Your task to perform on an android device: change alarm snooze length Image 0: 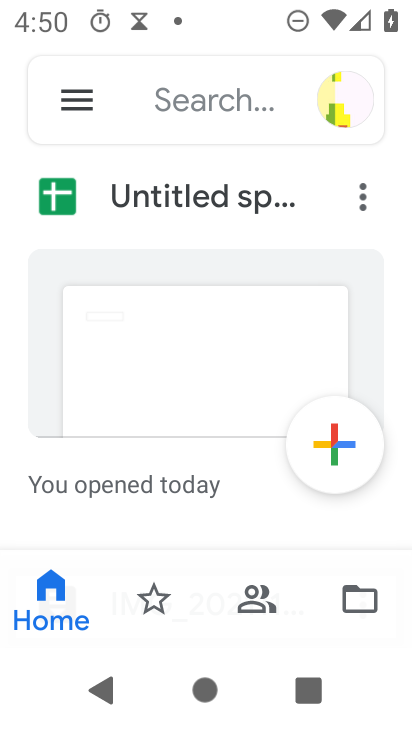
Step 0: press home button
Your task to perform on an android device: change alarm snooze length Image 1: 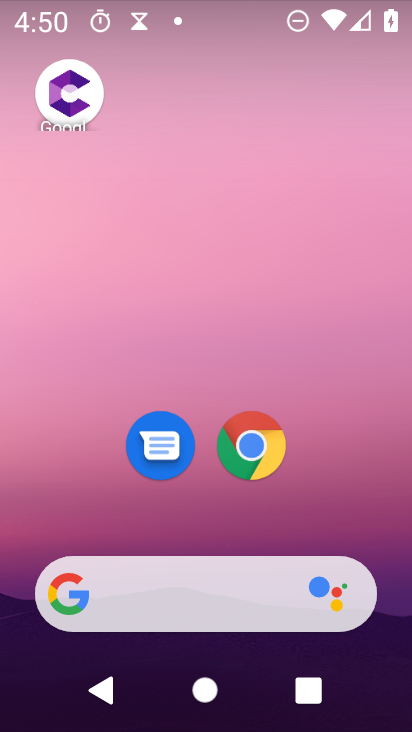
Step 1: drag from (272, 536) to (297, 0)
Your task to perform on an android device: change alarm snooze length Image 2: 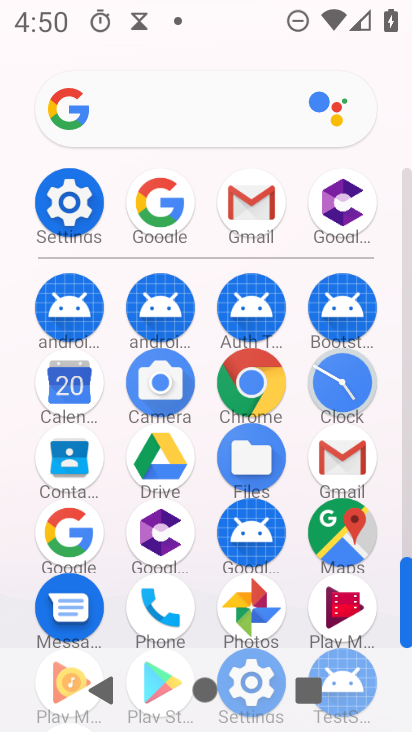
Step 2: click (343, 384)
Your task to perform on an android device: change alarm snooze length Image 3: 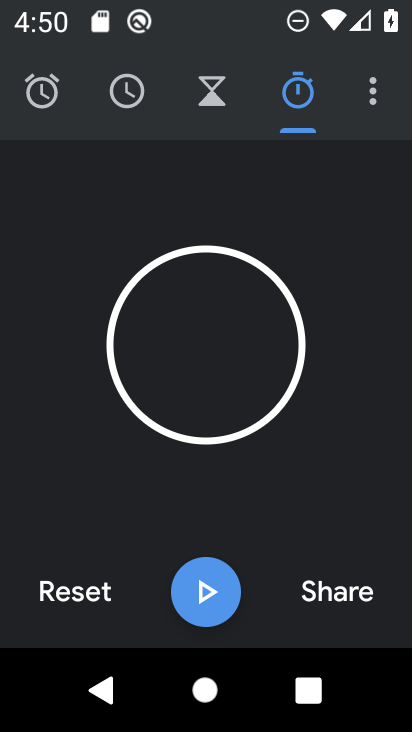
Step 3: click (374, 87)
Your task to perform on an android device: change alarm snooze length Image 4: 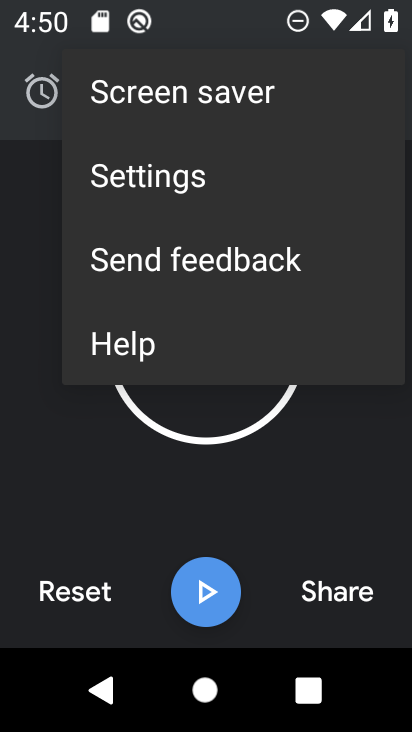
Step 4: click (207, 177)
Your task to perform on an android device: change alarm snooze length Image 5: 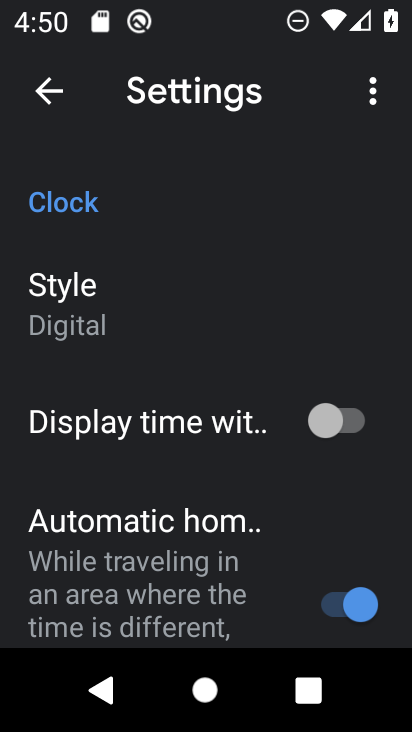
Step 5: drag from (134, 506) to (209, 318)
Your task to perform on an android device: change alarm snooze length Image 6: 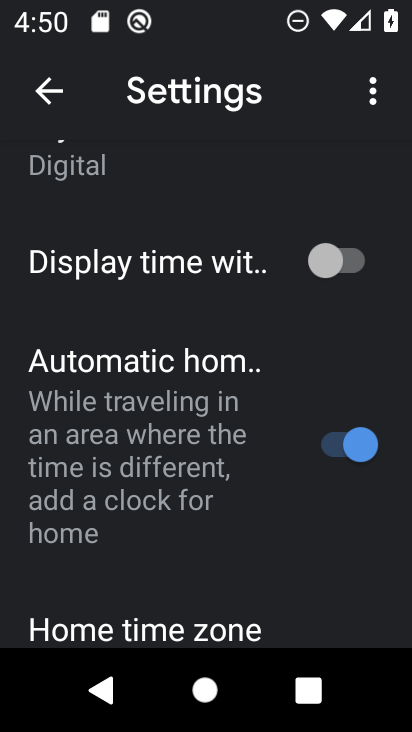
Step 6: drag from (165, 555) to (217, 332)
Your task to perform on an android device: change alarm snooze length Image 7: 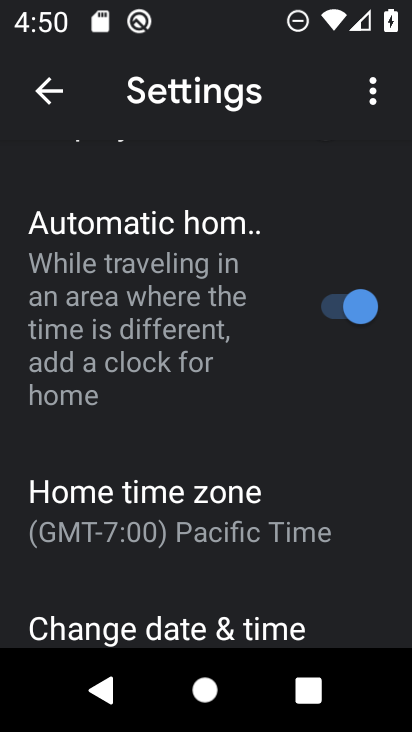
Step 7: drag from (155, 587) to (205, 410)
Your task to perform on an android device: change alarm snooze length Image 8: 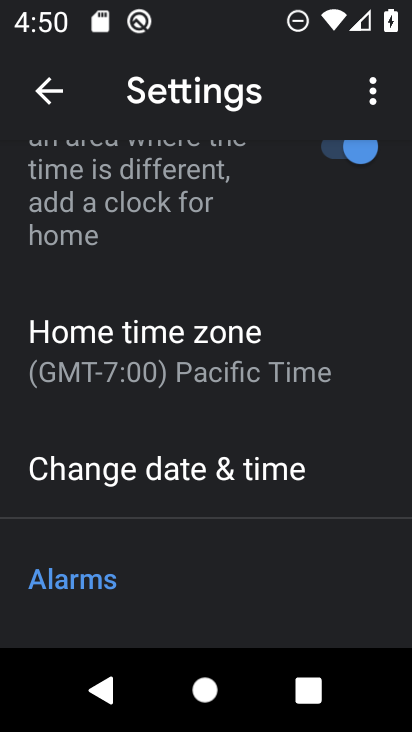
Step 8: drag from (170, 580) to (221, 411)
Your task to perform on an android device: change alarm snooze length Image 9: 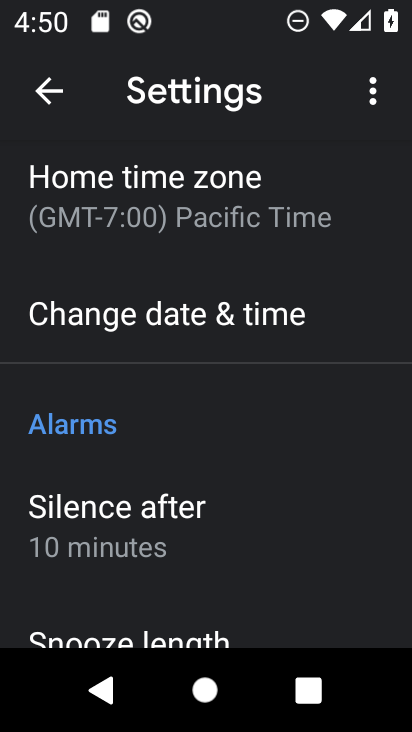
Step 9: drag from (213, 543) to (276, 377)
Your task to perform on an android device: change alarm snooze length Image 10: 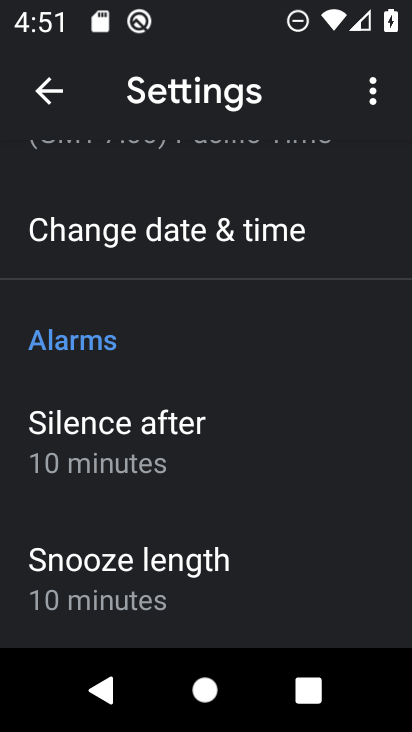
Step 10: click (183, 552)
Your task to perform on an android device: change alarm snooze length Image 11: 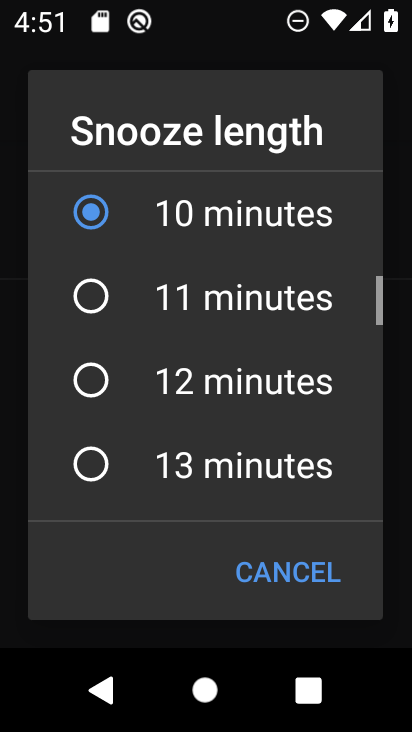
Step 11: click (152, 399)
Your task to perform on an android device: change alarm snooze length Image 12: 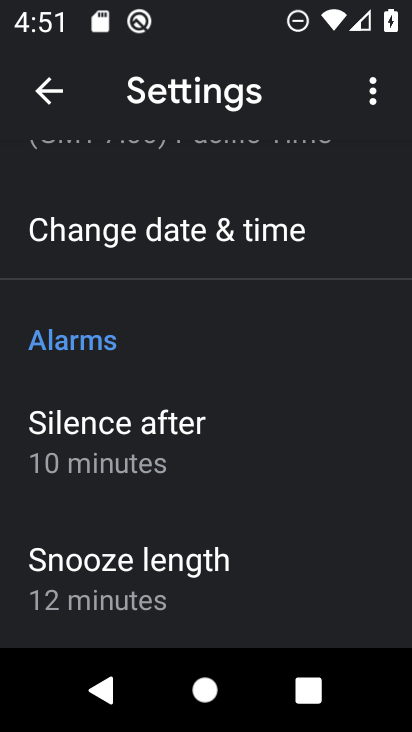
Step 12: task complete